Your task to perform on an android device: open chrome privacy settings Image 0: 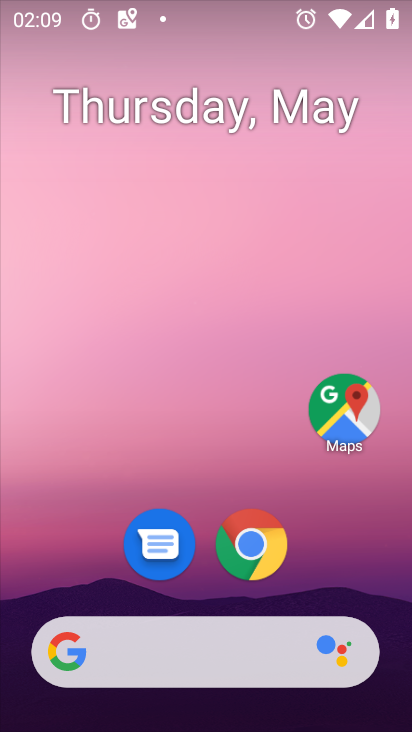
Step 0: drag from (381, 585) to (381, 266)
Your task to perform on an android device: open chrome privacy settings Image 1: 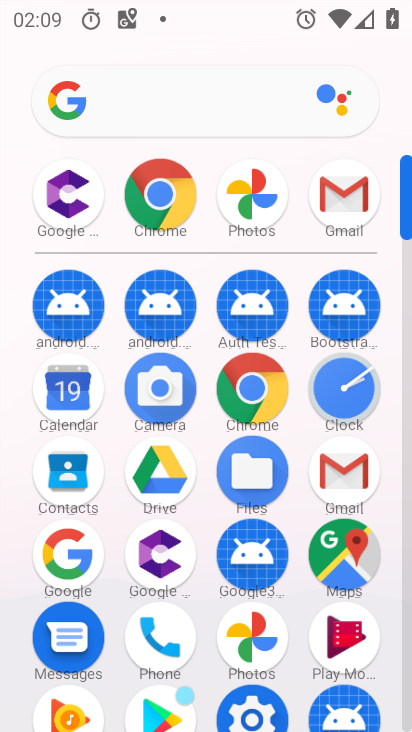
Step 1: click (264, 411)
Your task to perform on an android device: open chrome privacy settings Image 2: 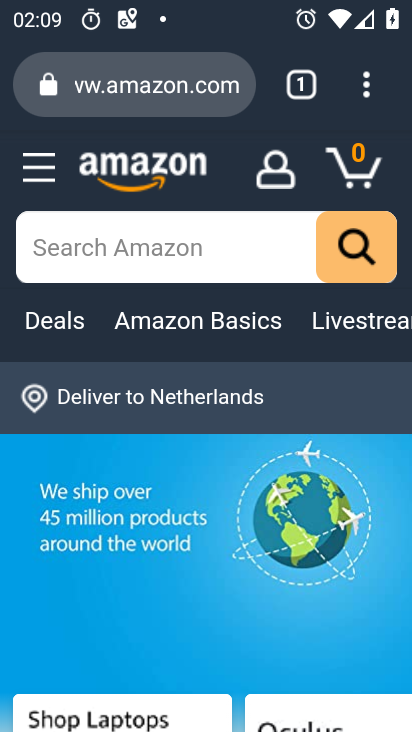
Step 2: click (369, 103)
Your task to perform on an android device: open chrome privacy settings Image 3: 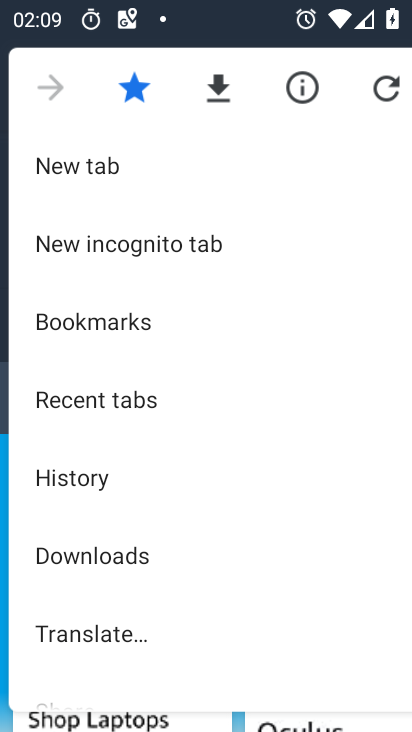
Step 3: drag from (396, 538) to (408, 491)
Your task to perform on an android device: open chrome privacy settings Image 4: 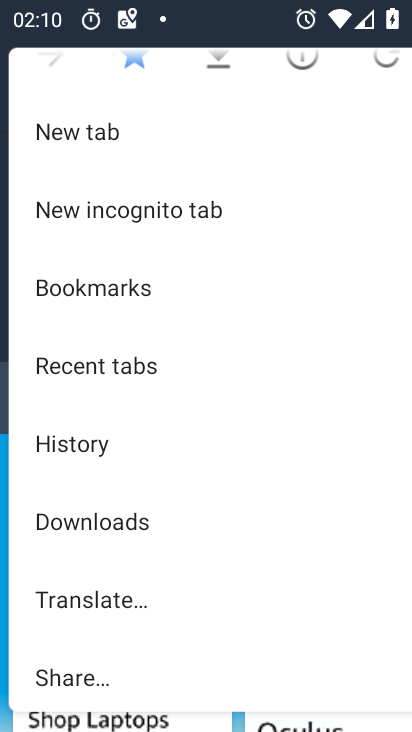
Step 4: drag from (364, 554) to (378, 481)
Your task to perform on an android device: open chrome privacy settings Image 5: 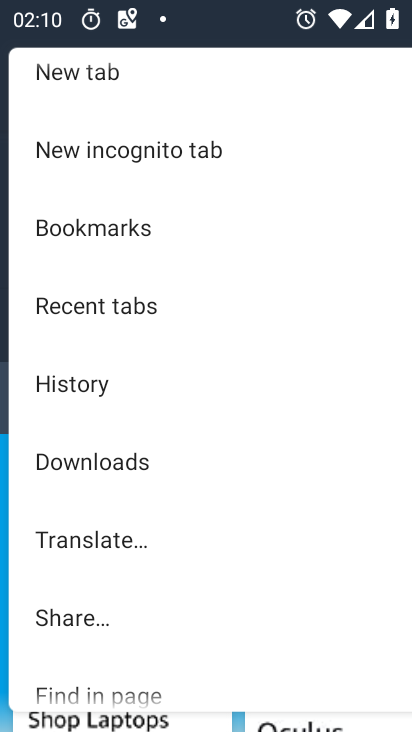
Step 5: drag from (385, 520) to (411, 467)
Your task to perform on an android device: open chrome privacy settings Image 6: 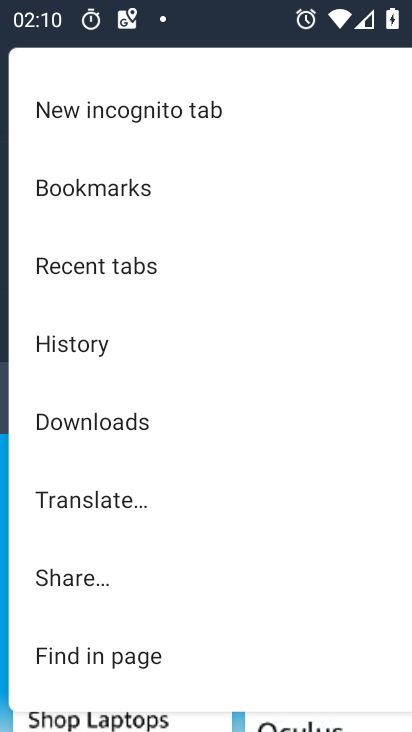
Step 6: drag from (324, 580) to (324, 441)
Your task to perform on an android device: open chrome privacy settings Image 7: 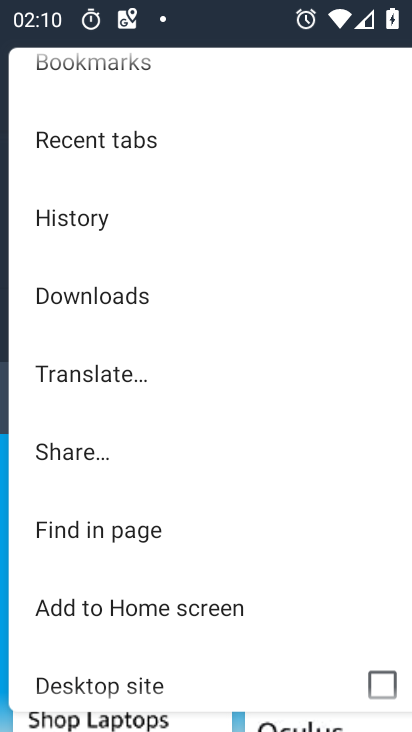
Step 7: drag from (229, 635) to (249, 450)
Your task to perform on an android device: open chrome privacy settings Image 8: 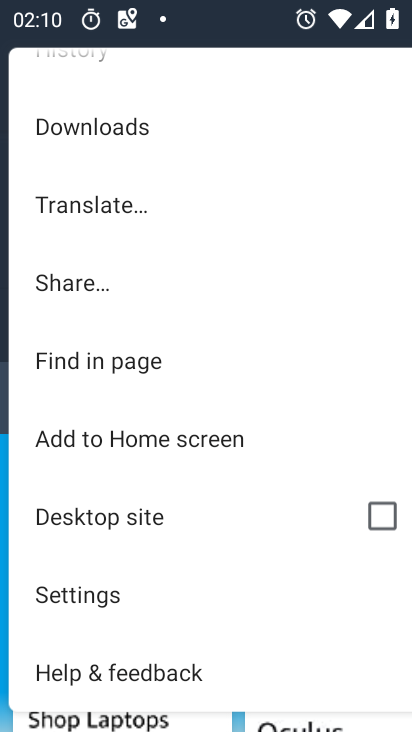
Step 8: click (130, 608)
Your task to perform on an android device: open chrome privacy settings Image 9: 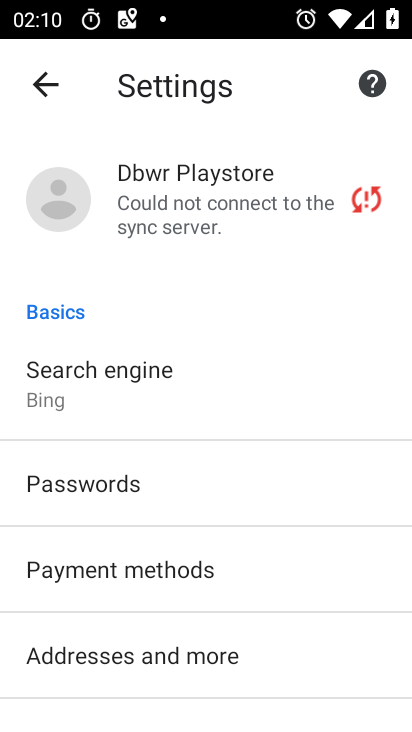
Step 9: drag from (260, 623) to (278, 548)
Your task to perform on an android device: open chrome privacy settings Image 10: 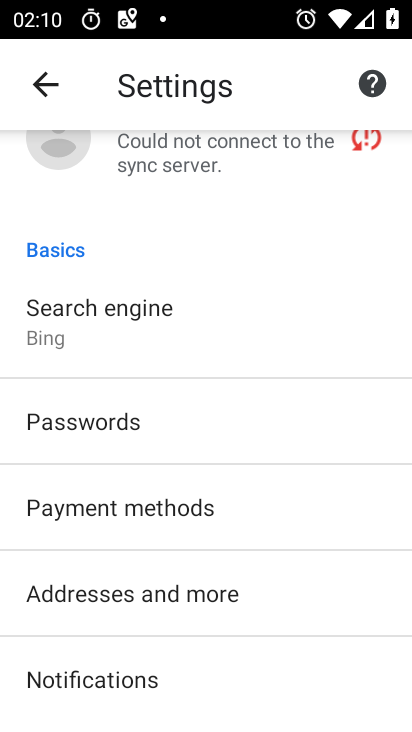
Step 10: drag from (279, 645) to (294, 574)
Your task to perform on an android device: open chrome privacy settings Image 11: 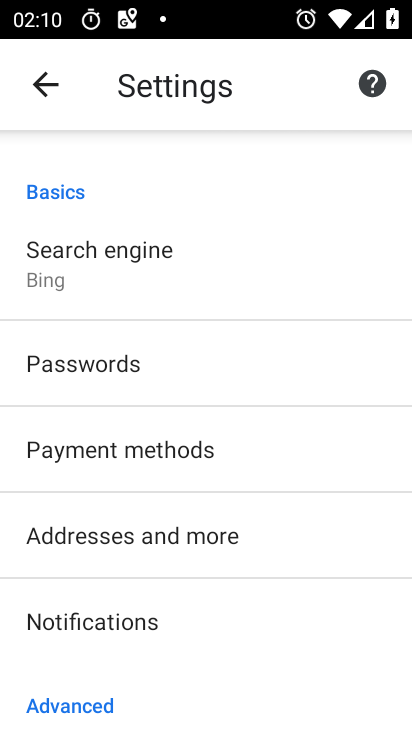
Step 11: drag from (300, 628) to (324, 557)
Your task to perform on an android device: open chrome privacy settings Image 12: 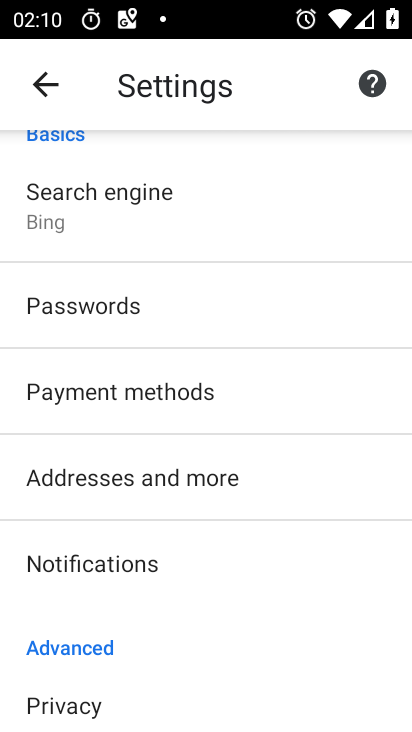
Step 12: drag from (328, 608) to (344, 543)
Your task to perform on an android device: open chrome privacy settings Image 13: 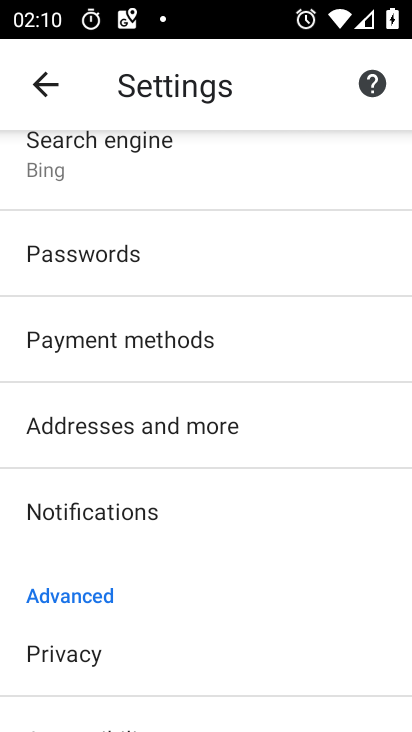
Step 13: drag from (332, 601) to (339, 529)
Your task to perform on an android device: open chrome privacy settings Image 14: 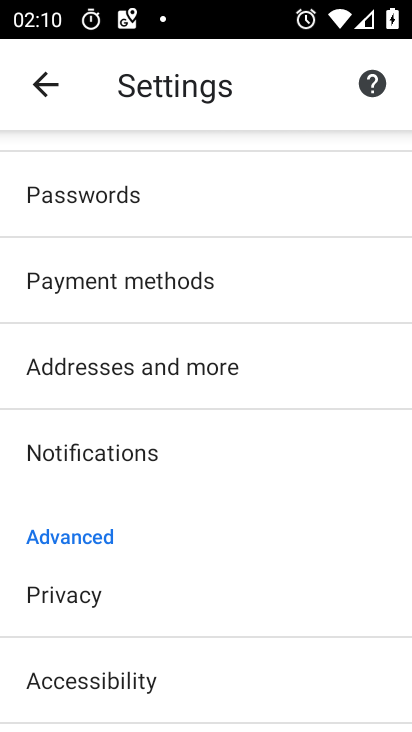
Step 14: click (230, 560)
Your task to perform on an android device: open chrome privacy settings Image 15: 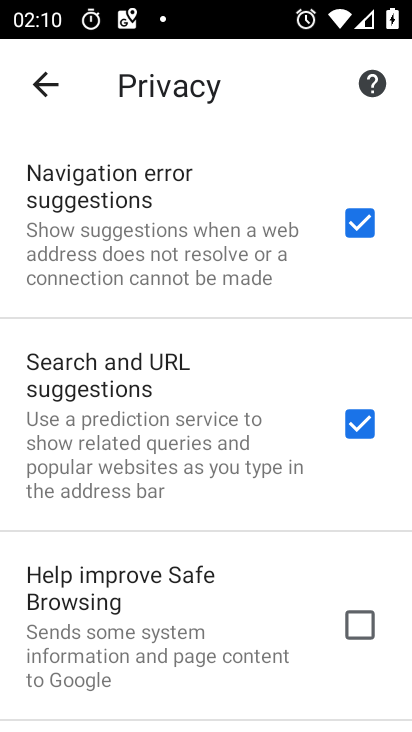
Step 15: task complete